Your task to perform on an android device: Search for "bose soundlink mini" on amazon.com, select the first entry, and add it to the cart. Image 0: 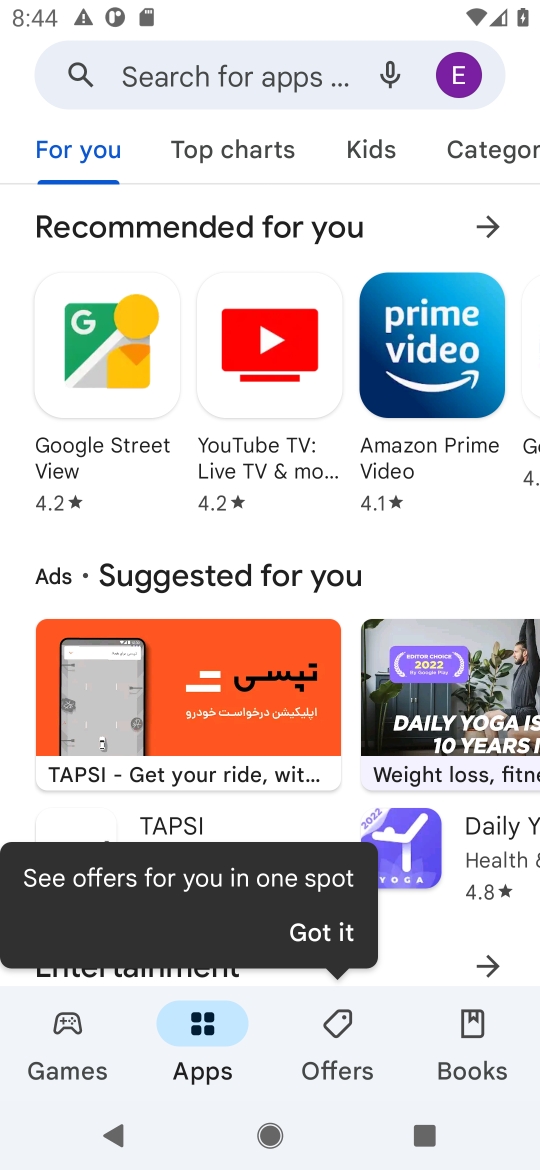
Step 0: press home button
Your task to perform on an android device: Search for "bose soundlink mini" on amazon.com, select the first entry, and add it to the cart. Image 1: 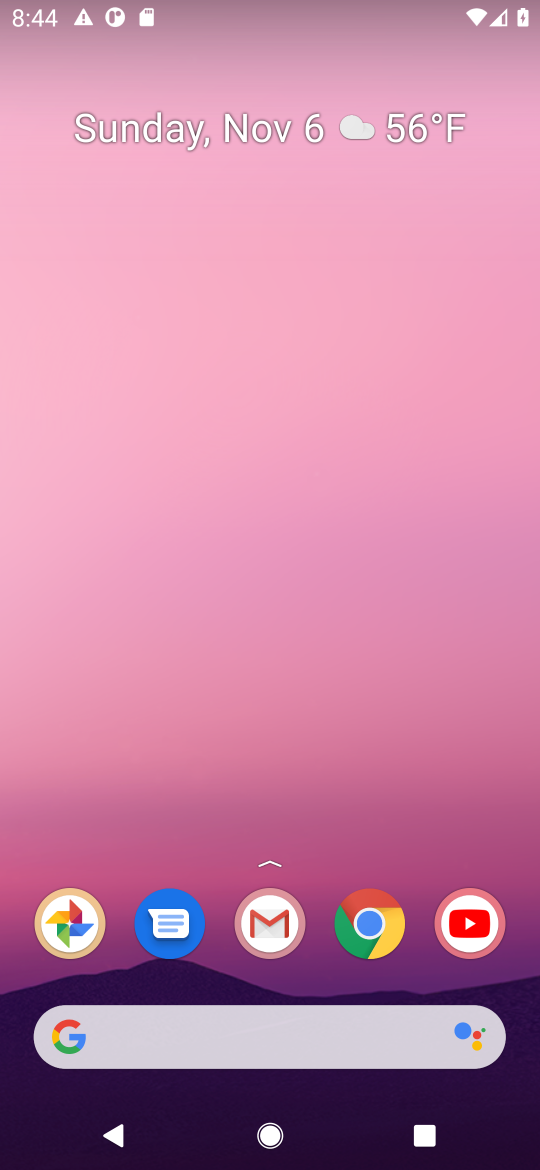
Step 1: click (364, 915)
Your task to perform on an android device: Search for "bose soundlink mini" on amazon.com, select the first entry, and add it to the cart. Image 2: 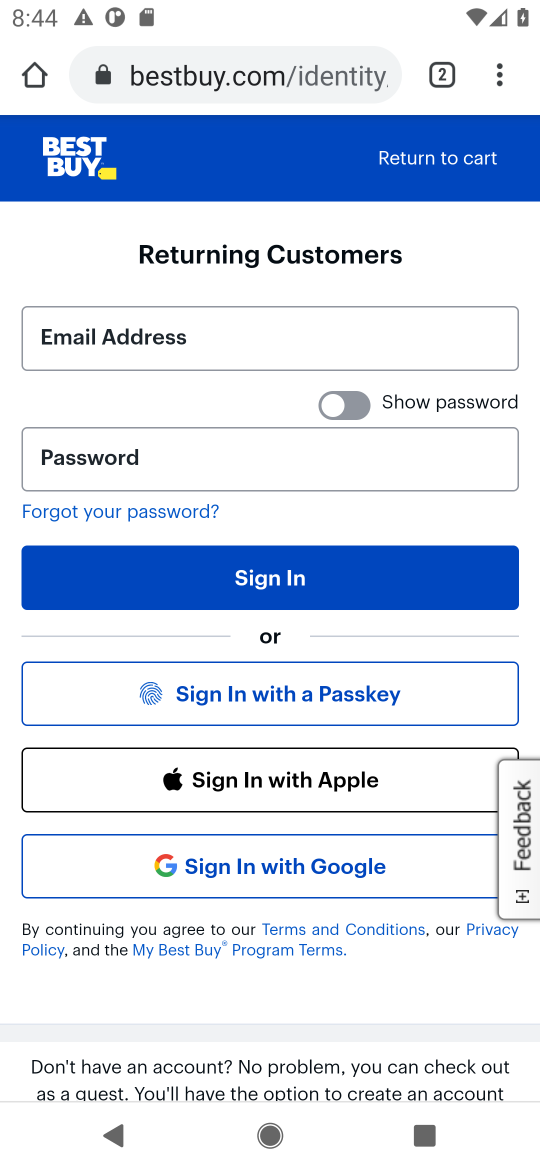
Step 2: click (233, 90)
Your task to perform on an android device: Search for "bose soundlink mini" on amazon.com, select the first entry, and add it to the cart. Image 3: 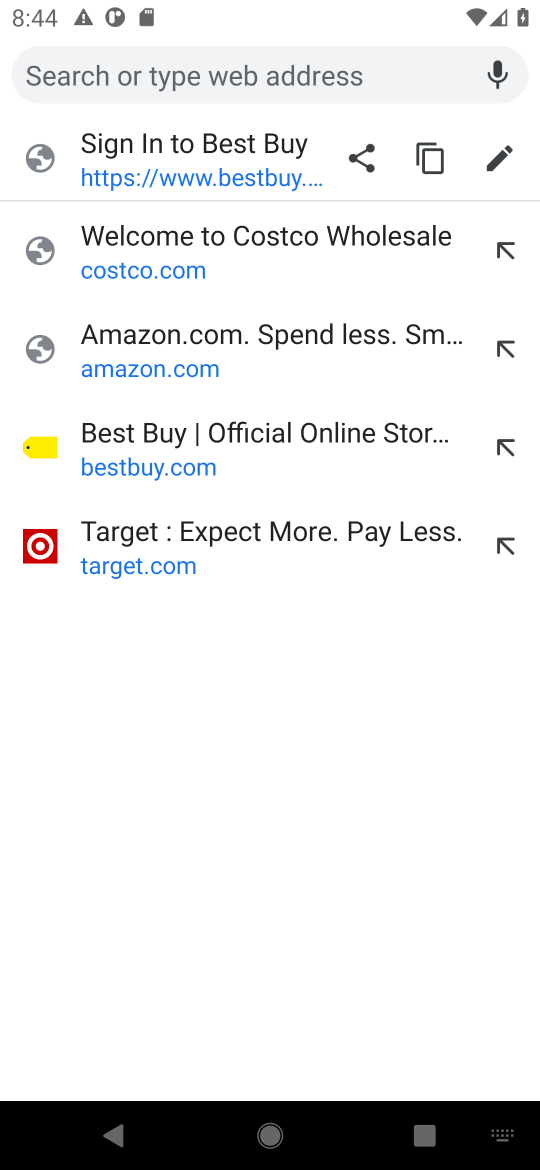
Step 3: click (158, 350)
Your task to perform on an android device: Search for "bose soundlink mini" on amazon.com, select the first entry, and add it to the cart. Image 4: 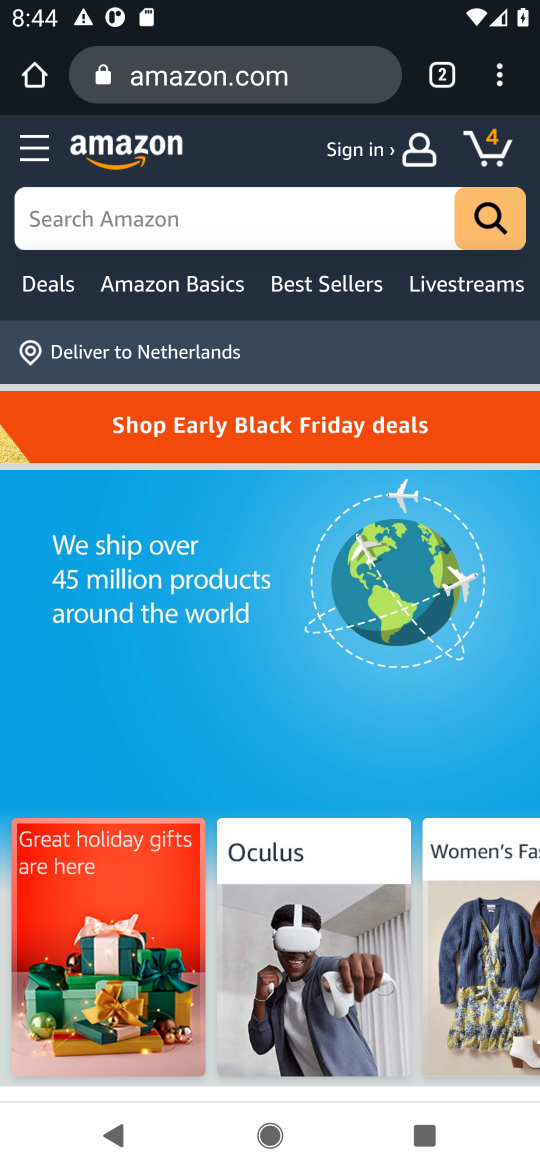
Step 4: click (280, 210)
Your task to perform on an android device: Search for "bose soundlink mini" on amazon.com, select the first entry, and add it to the cart. Image 5: 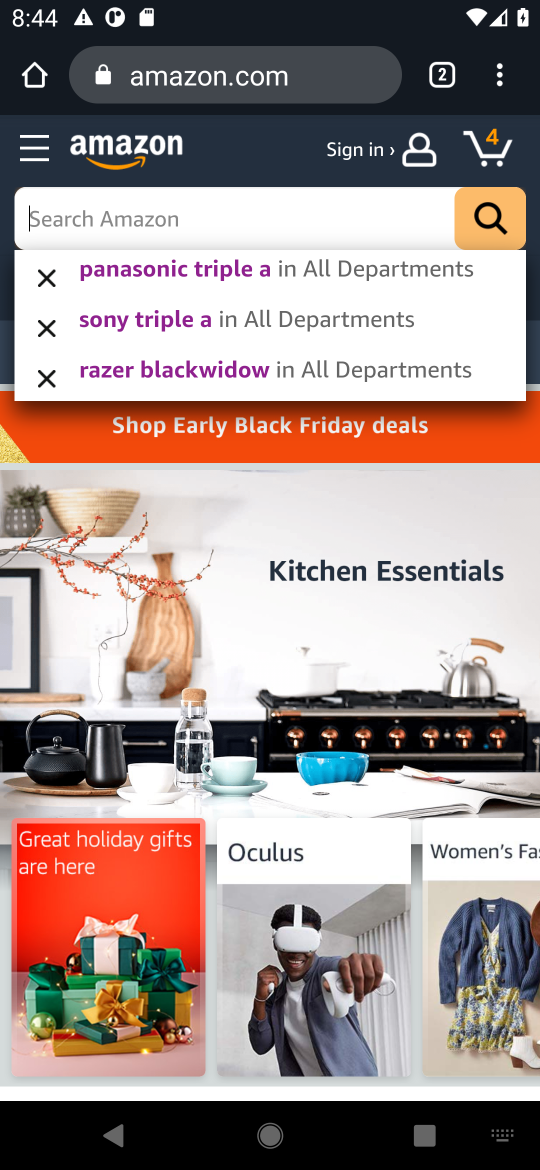
Step 5: type "bose soundlink mini"
Your task to perform on an android device: Search for "bose soundlink mini" on amazon.com, select the first entry, and add it to the cart. Image 6: 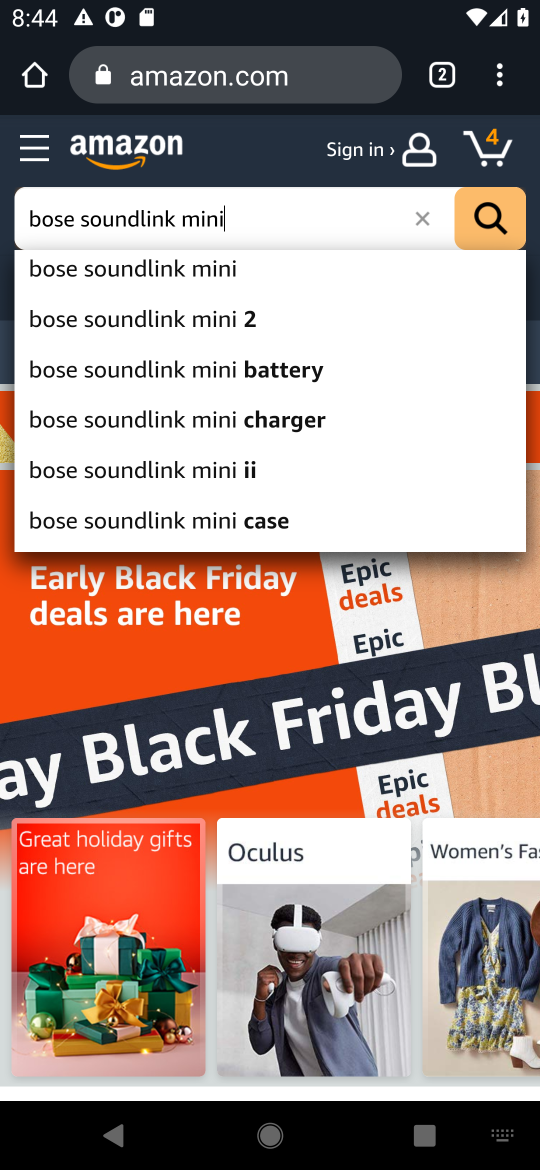
Step 6: click (151, 282)
Your task to perform on an android device: Search for "bose soundlink mini" on amazon.com, select the first entry, and add it to the cart. Image 7: 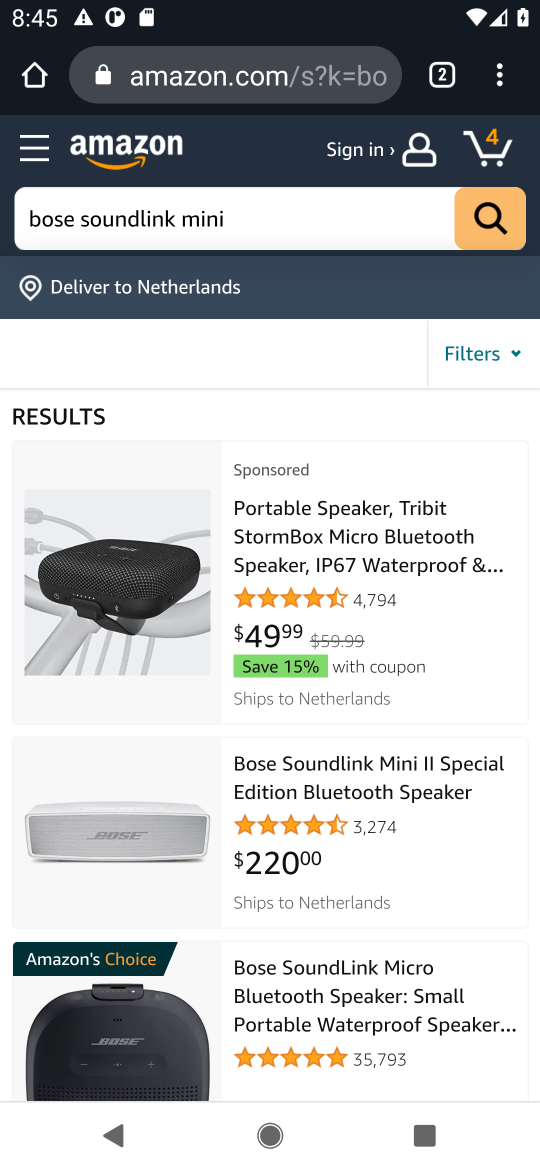
Step 7: task complete